Your task to perform on an android device: find which apps use the phone's location Image 0: 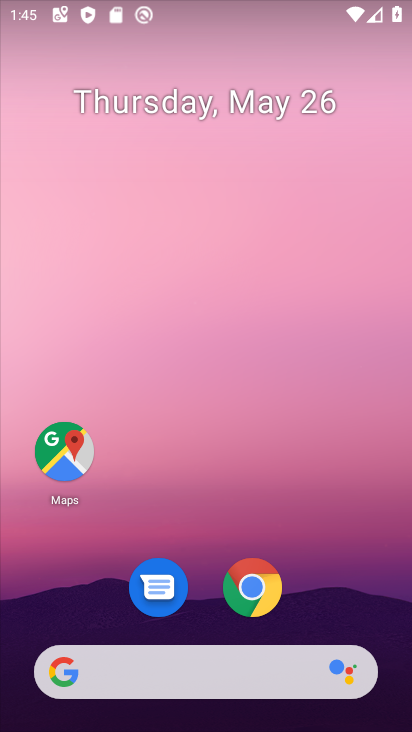
Step 0: drag from (291, 361) to (317, 173)
Your task to perform on an android device: find which apps use the phone's location Image 1: 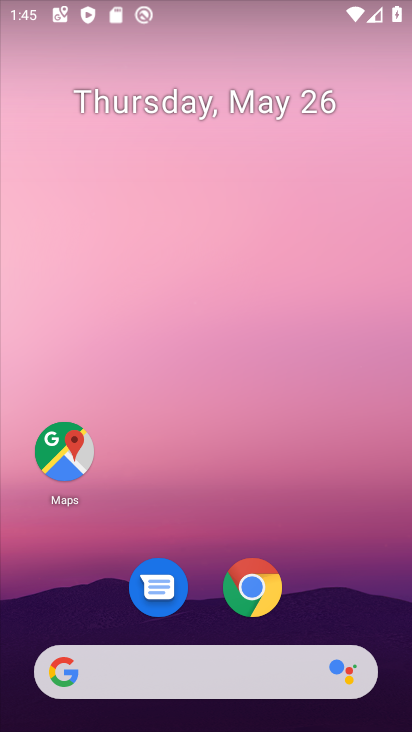
Step 1: drag from (318, 456) to (333, 86)
Your task to perform on an android device: find which apps use the phone's location Image 2: 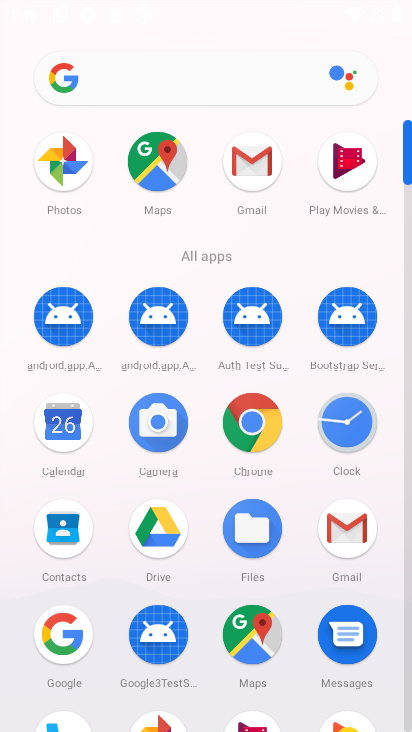
Step 2: drag from (308, 521) to (327, 79)
Your task to perform on an android device: find which apps use the phone's location Image 3: 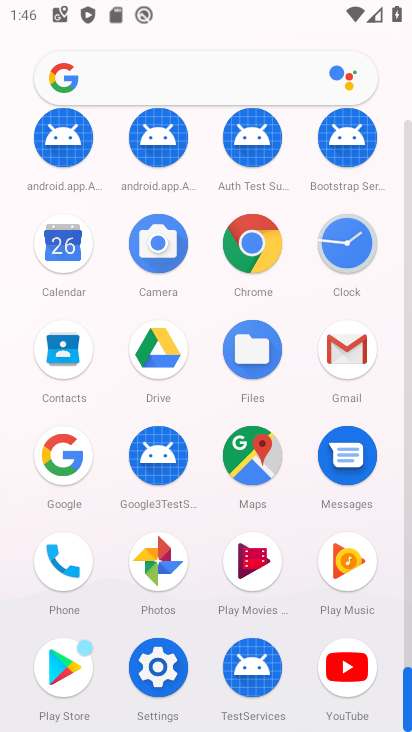
Step 3: click (154, 672)
Your task to perform on an android device: find which apps use the phone's location Image 4: 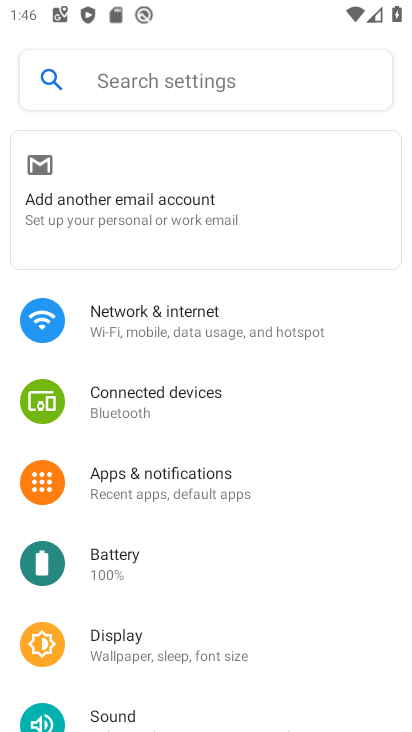
Step 4: drag from (230, 524) to (285, 205)
Your task to perform on an android device: find which apps use the phone's location Image 5: 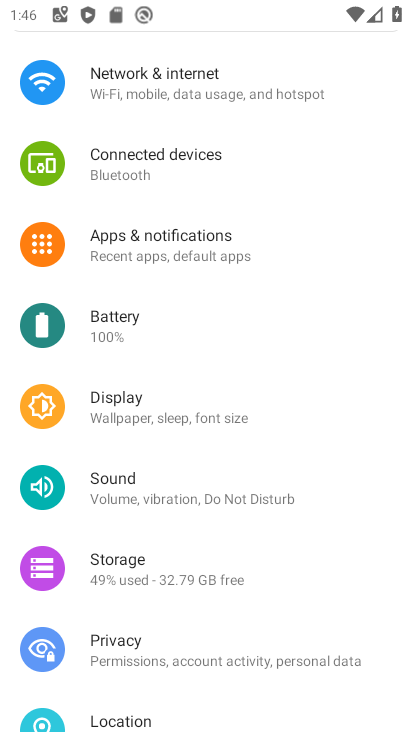
Step 5: click (120, 711)
Your task to perform on an android device: find which apps use the phone's location Image 6: 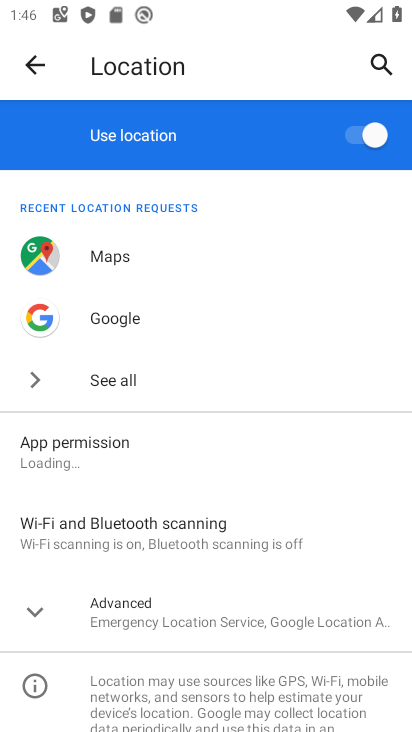
Step 6: drag from (228, 603) to (264, 255)
Your task to perform on an android device: find which apps use the phone's location Image 7: 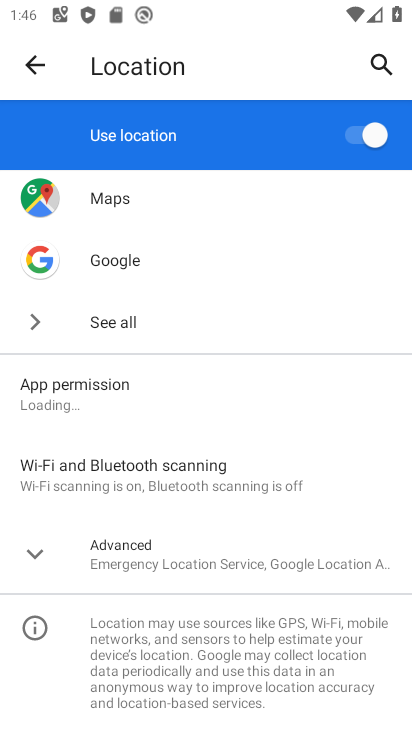
Step 7: click (169, 566)
Your task to perform on an android device: find which apps use the phone's location Image 8: 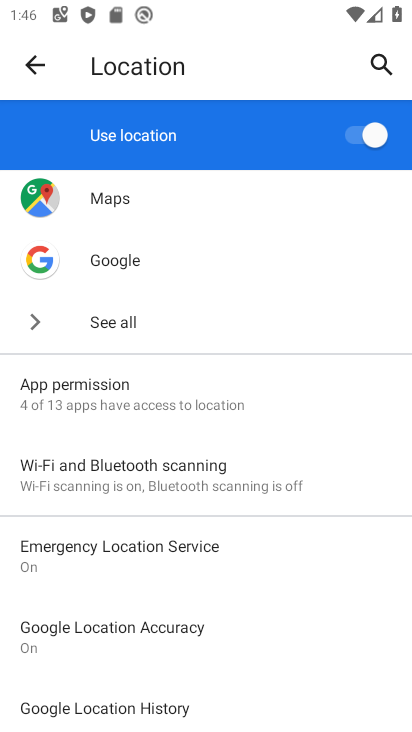
Step 8: click (131, 387)
Your task to perform on an android device: find which apps use the phone's location Image 9: 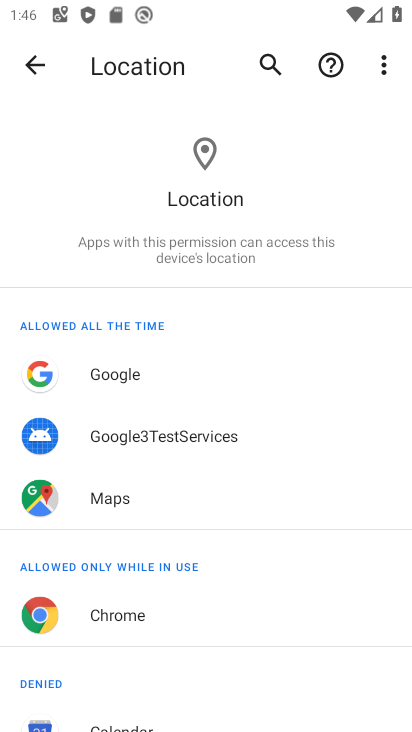
Step 9: task complete